Your task to perform on an android device: delete browsing data in the chrome app Image 0: 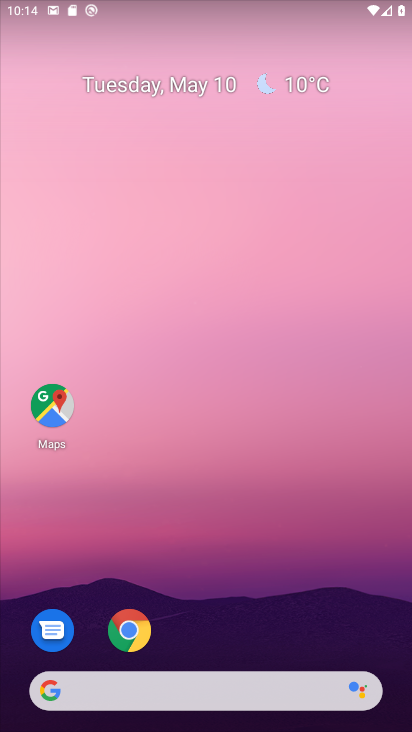
Step 0: click (129, 622)
Your task to perform on an android device: delete browsing data in the chrome app Image 1: 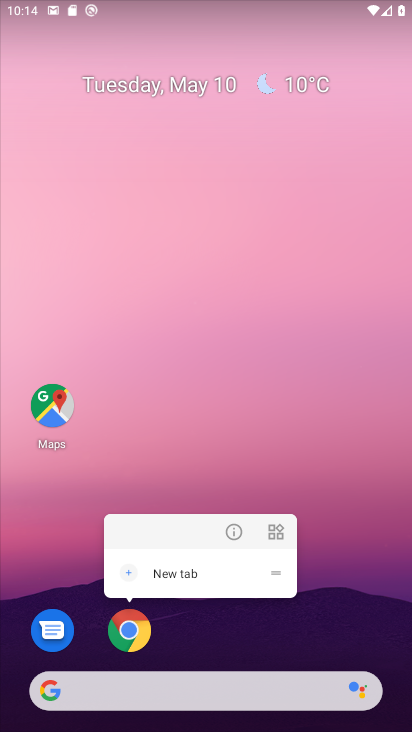
Step 1: click (125, 636)
Your task to perform on an android device: delete browsing data in the chrome app Image 2: 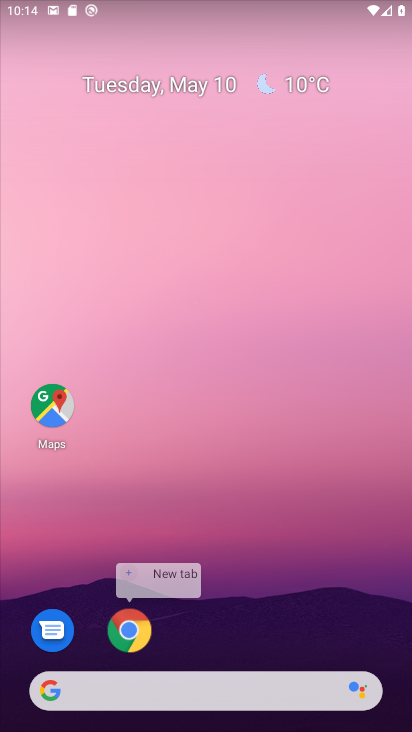
Step 2: click (125, 636)
Your task to perform on an android device: delete browsing data in the chrome app Image 3: 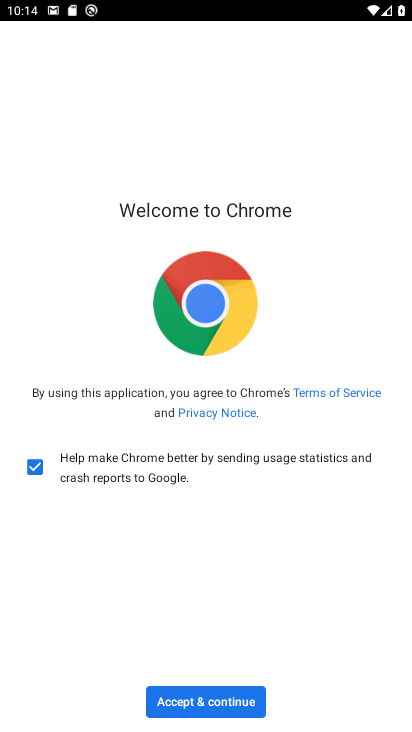
Step 3: click (170, 688)
Your task to perform on an android device: delete browsing data in the chrome app Image 4: 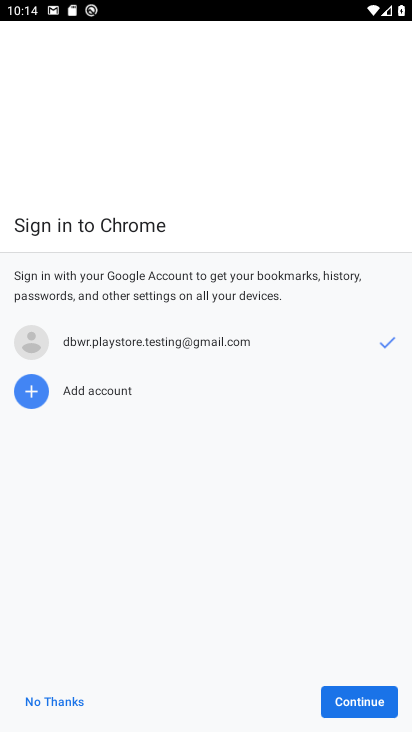
Step 4: click (370, 706)
Your task to perform on an android device: delete browsing data in the chrome app Image 5: 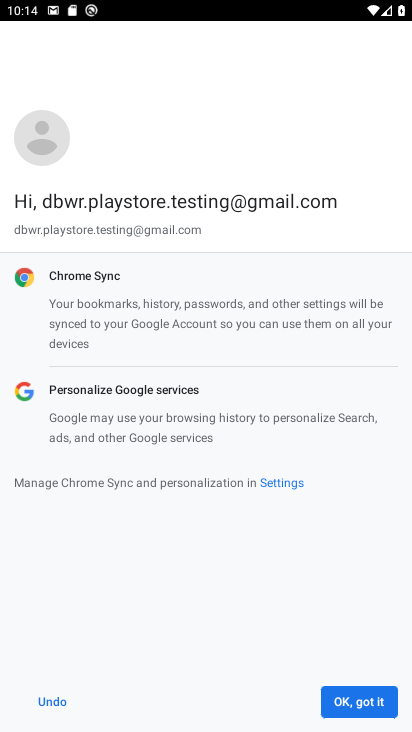
Step 5: click (367, 702)
Your task to perform on an android device: delete browsing data in the chrome app Image 6: 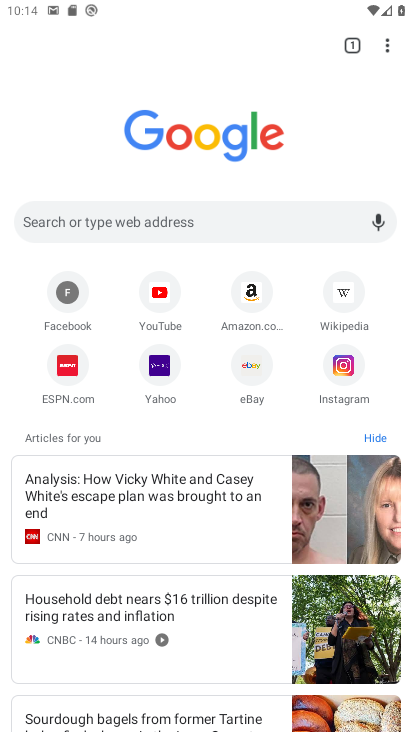
Step 6: click (387, 41)
Your task to perform on an android device: delete browsing data in the chrome app Image 7: 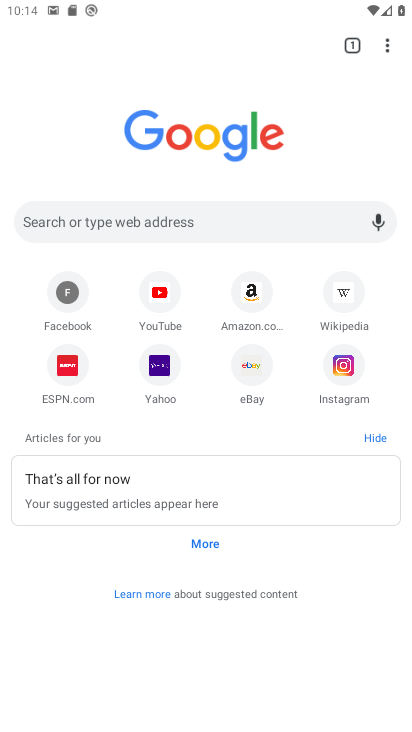
Step 7: click (385, 42)
Your task to perform on an android device: delete browsing data in the chrome app Image 8: 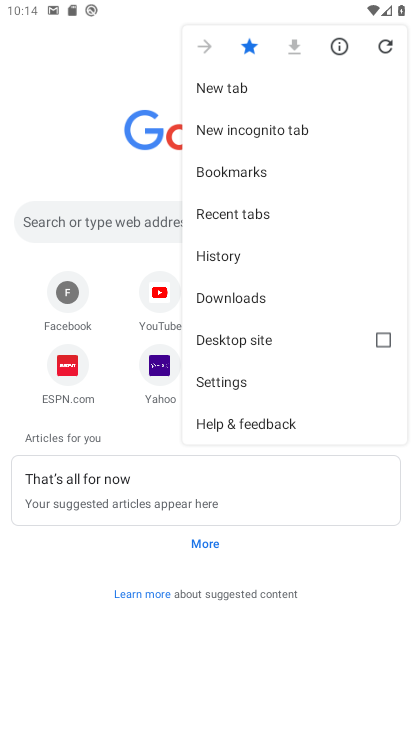
Step 8: click (250, 246)
Your task to perform on an android device: delete browsing data in the chrome app Image 9: 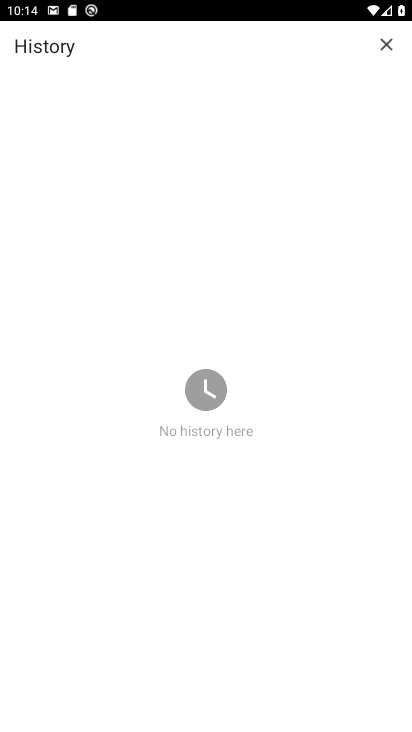
Step 9: task complete